Your task to perform on an android device: change the upload size in google photos Image 0: 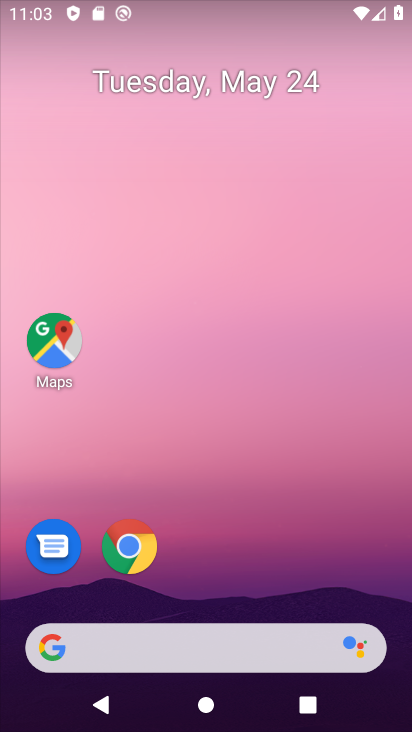
Step 0: drag from (257, 595) to (191, 6)
Your task to perform on an android device: change the upload size in google photos Image 1: 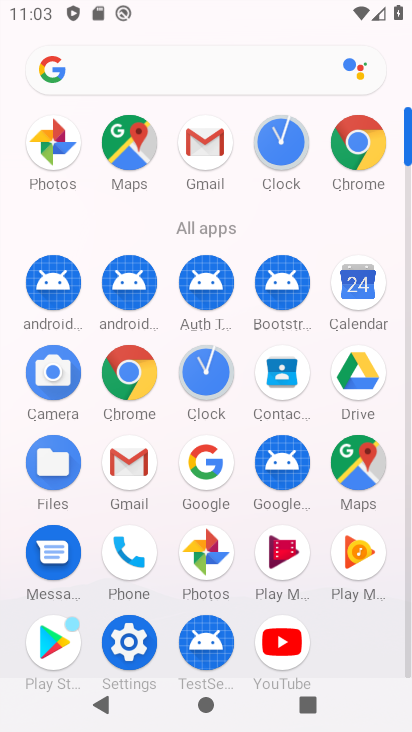
Step 1: click (55, 135)
Your task to perform on an android device: change the upload size in google photos Image 2: 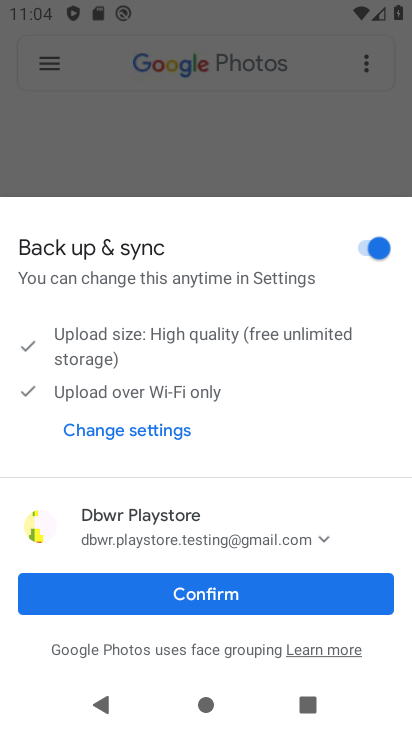
Step 2: click (217, 606)
Your task to perform on an android device: change the upload size in google photos Image 3: 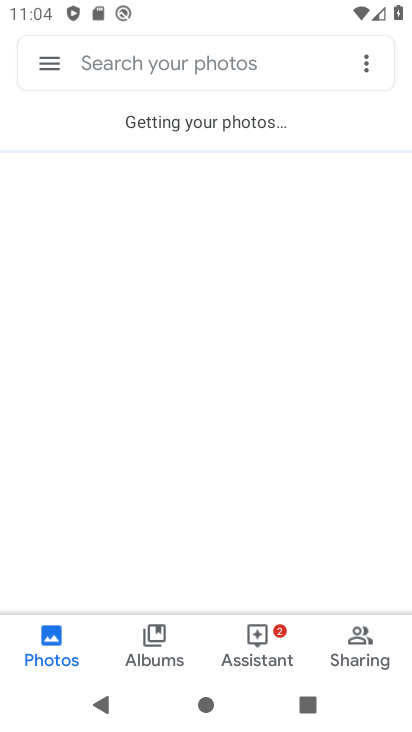
Step 3: click (50, 57)
Your task to perform on an android device: change the upload size in google photos Image 4: 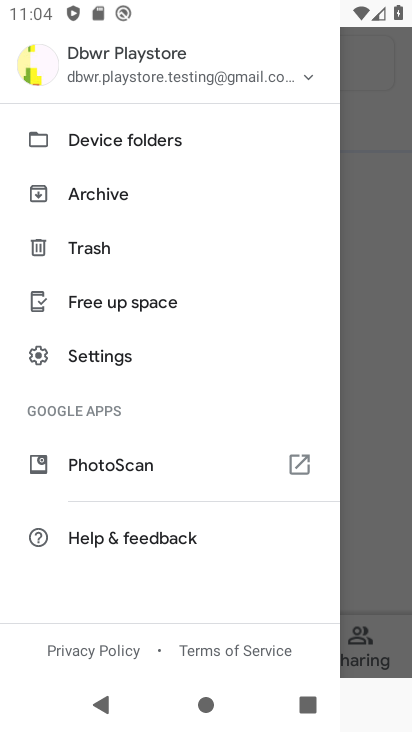
Step 4: click (137, 356)
Your task to perform on an android device: change the upload size in google photos Image 5: 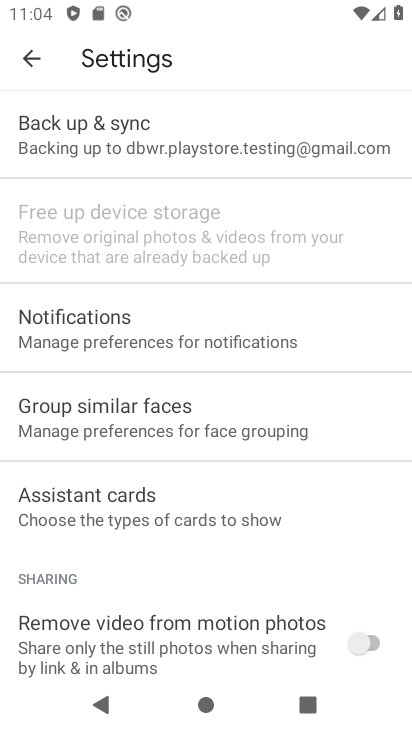
Step 5: click (185, 152)
Your task to perform on an android device: change the upload size in google photos Image 6: 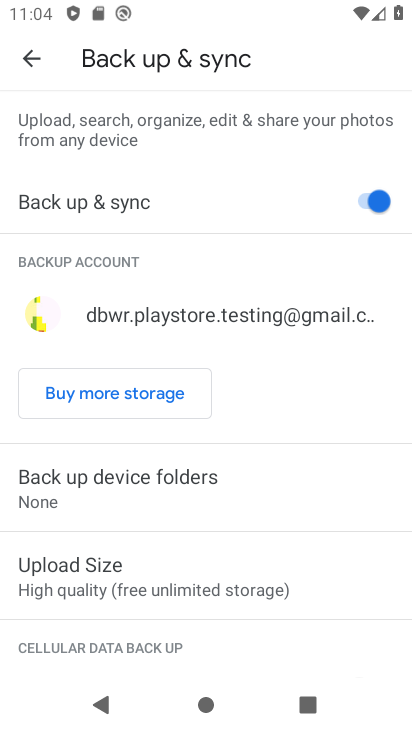
Step 6: click (193, 573)
Your task to perform on an android device: change the upload size in google photos Image 7: 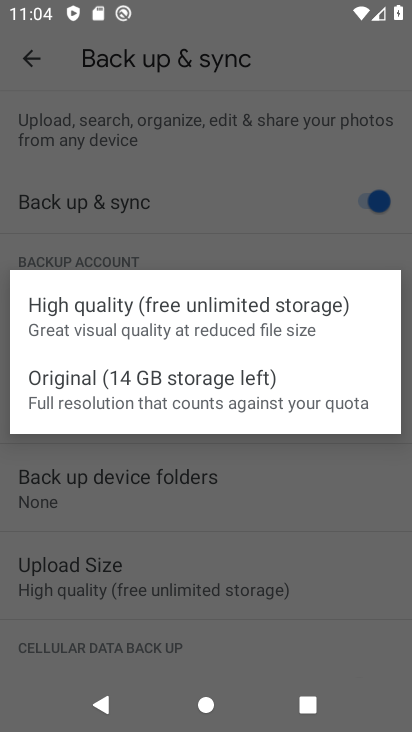
Step 7: click (234, 378)
Your task to perform on an android device: change the upload size in google photos Image 8: 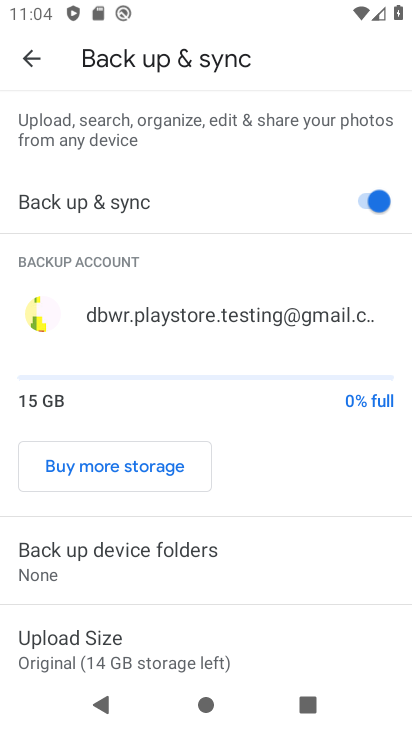
Step 8: task complete